Your task to perform on an android device: delete browsing data in the chrome app Image 0: 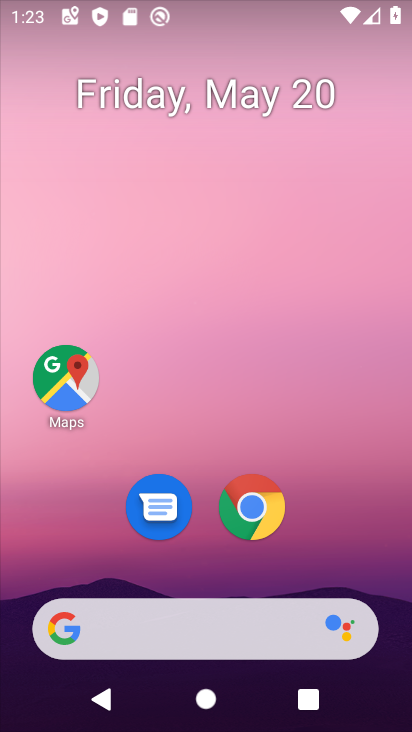
Step 0: click (251, 513)
Your task to perform on an android device: delete browsing data in the chrome app Image 1: 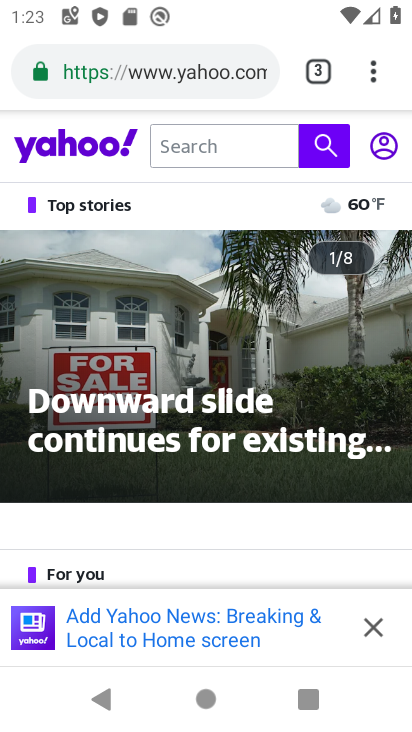
Step 1: click (374, 76)
Your task to perform on an android device: delete browsing data in the chrome app Image 2: 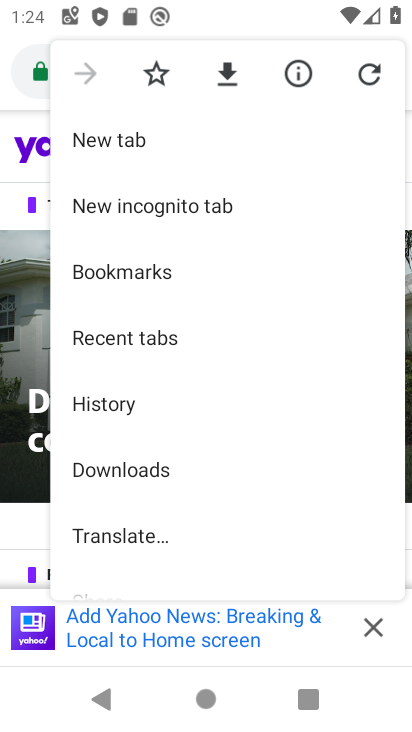
Step 2: click (103, 402)
Your task to perform on an android device: delete browsing data in the chrome app Image 3: 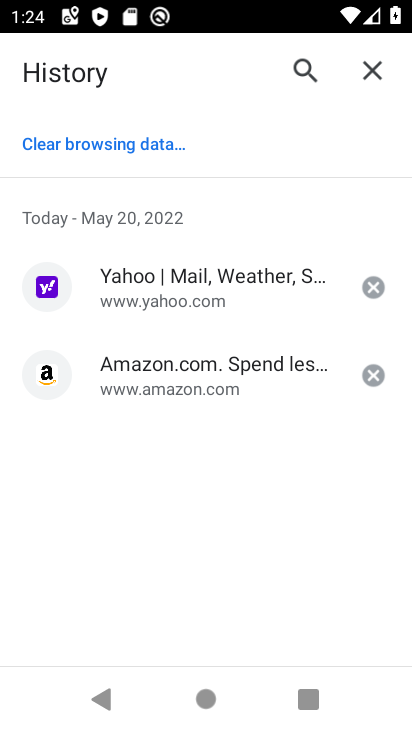
Step 3: click (122, 143)
Your task to perform on an android device: delete browsing data in the chrome app Image 4: 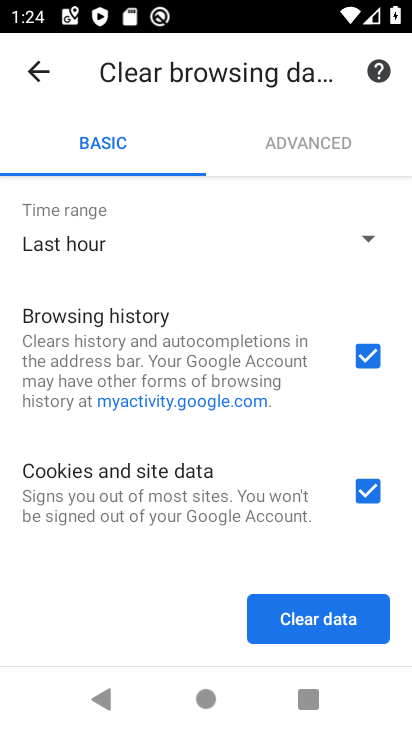
Step 4: click (371, 490)
Your task to perform on an android device: delete browsing data in the chrome app Image 5: 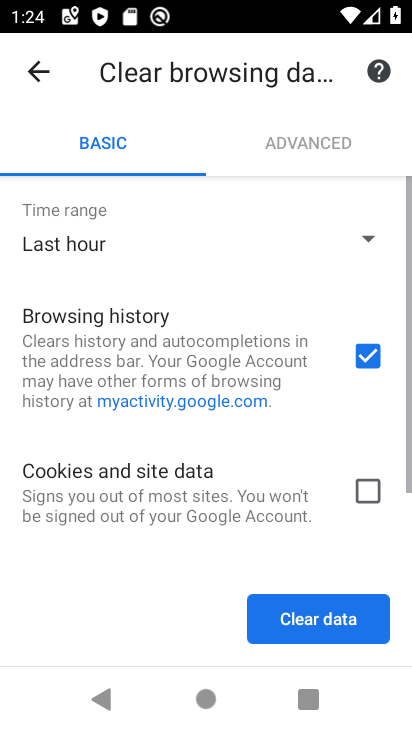
Step 5: drag from (224, 555) to (217, 279)
Your task to perform on an android device: delete browsing data in the chrome app Image 6: 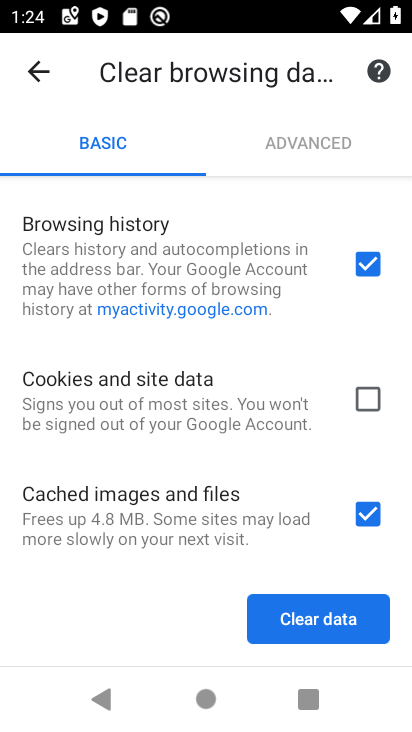
Step 6: click (365, 511)
Your task to perform on an android device: delete browsing data in the chrome app Image 7: 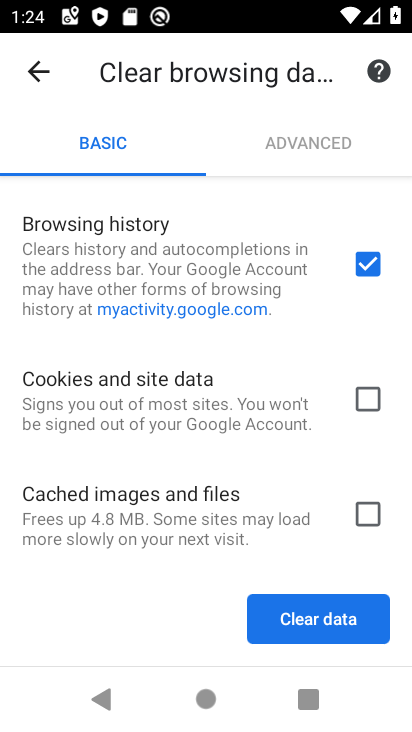
Step 7: click (293, 622)
Your task to perform on an android device: delete browsing data in the chrome app Image 8: 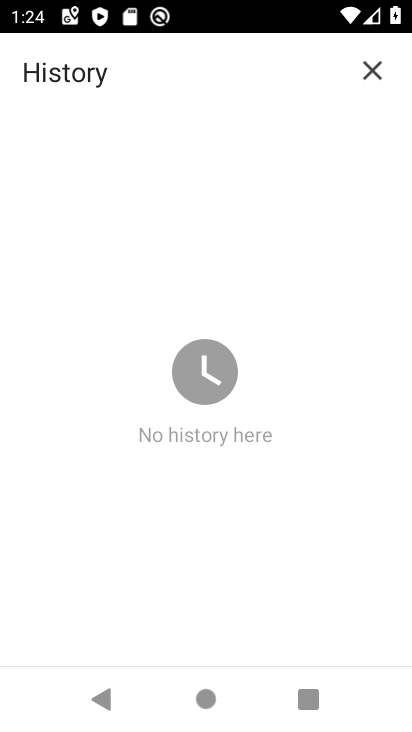
Step 8: task complete